Your task to perform on an android device: turn off improve location accuracy Image 0: 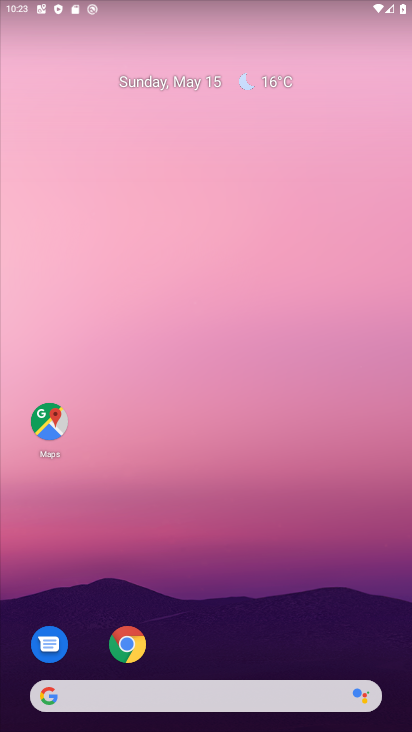
Step 0: drag from (262, 685) to (245, 188)
Your task to perform on an android device: turn off improve location accuracy Image 1: 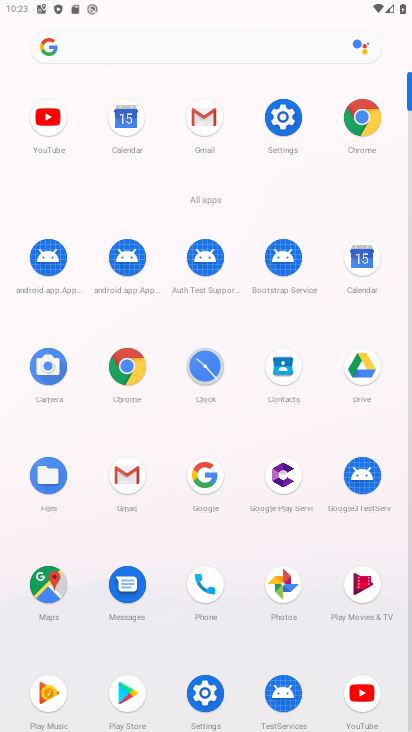
Step 1: click (295, 118)
Your task to perform on an android device: turn off improve location accuracy Image 2: 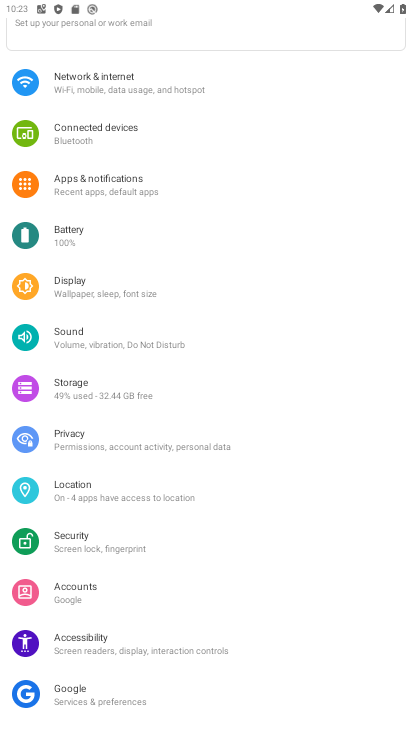
Step 2: click (98, 492)
Your task to perform on an android device: turn off improve location accuracy Image 3: 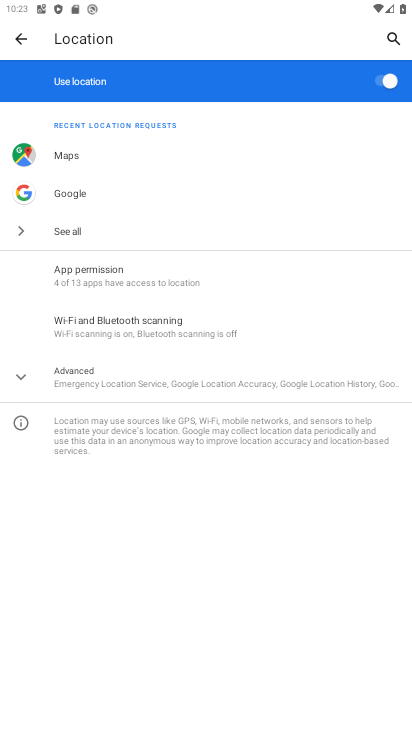
Step 3: click (103, 379)
Your task to perform on an android device: turn off improve location accuracy Image 4: 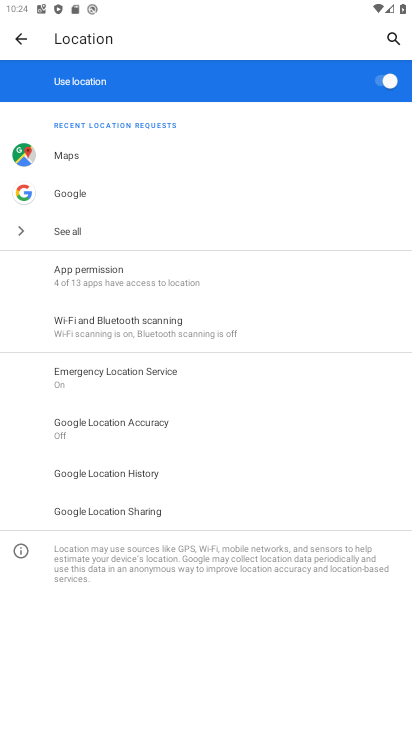
Step 4: click (179, 423)
Your task to perform on an android device: turn off improve location accuracy Image 5: 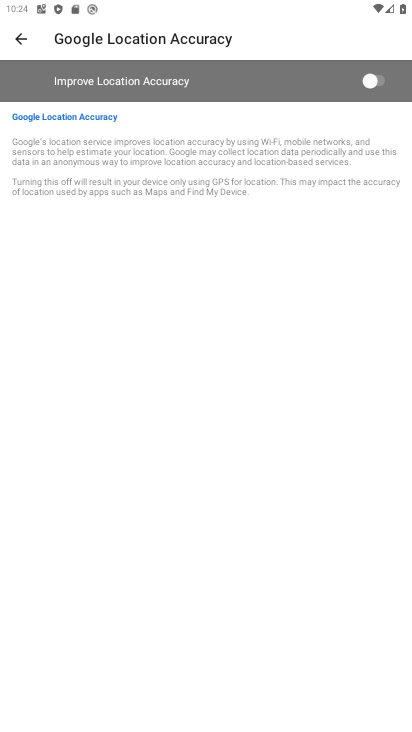
Step 5: task complete